Your task to perform on an android device: Find coffee shops on Maps Image 0: 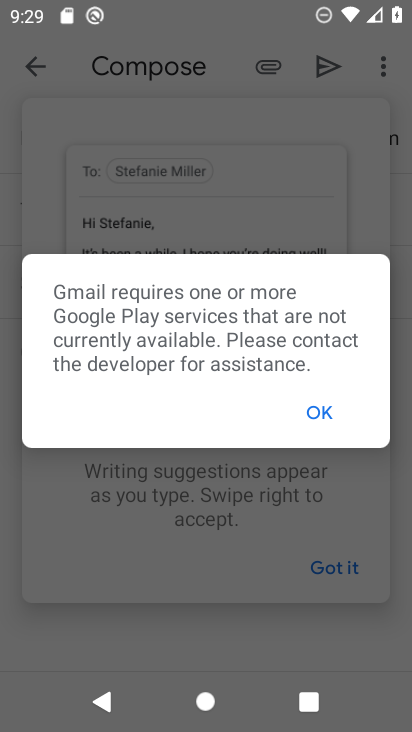
Step 0: press home button
Your task to perform on an android device: Find coffee shops on Maps Image 1: 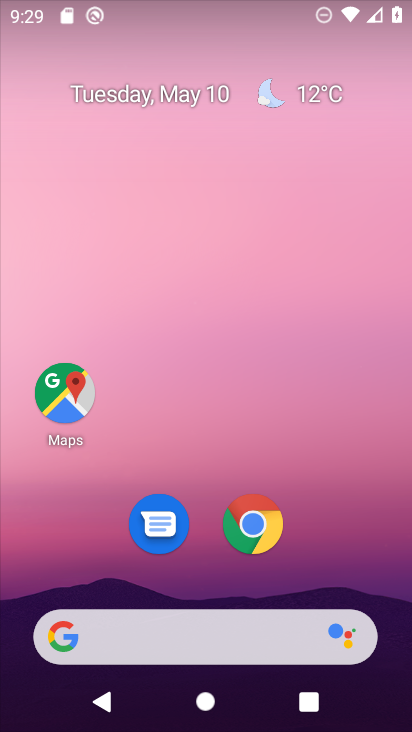
Step 1: click (59, 398)
Your task to perform on an android device: Find coffee shops on Maps Image 2: 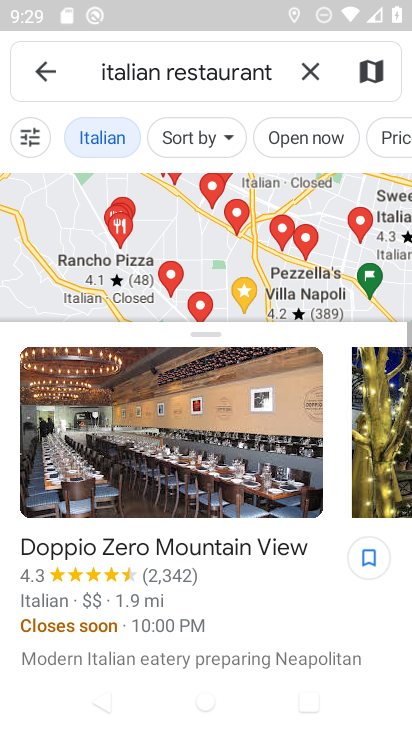
Step 2: click (306, 70)
Your task to perform on an android device: Find coffee shops on Maps Image 3: 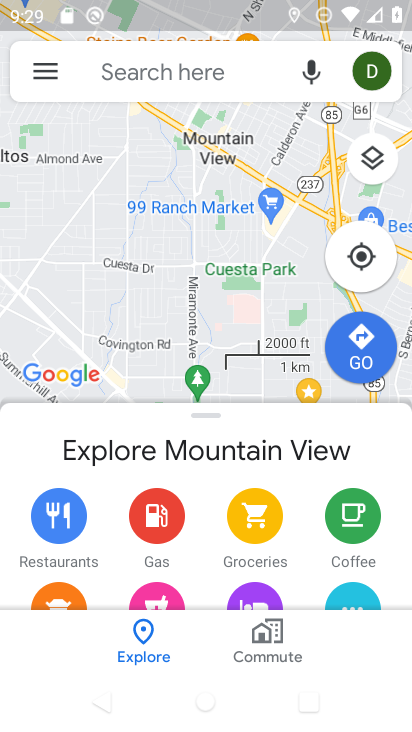
Step 3: click (171, 72)
Your task to perform on an android device: Find coffee shops on Maps Image 4: 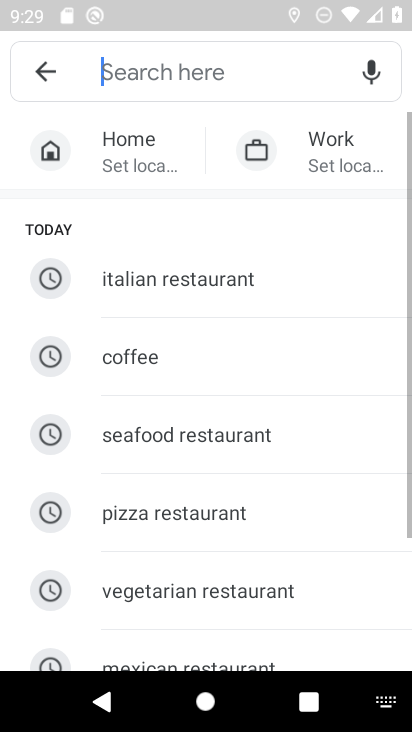
Step 4: click (139, 358)
Your task to perform on an android device: Find coffee shops on Maps Image 5: 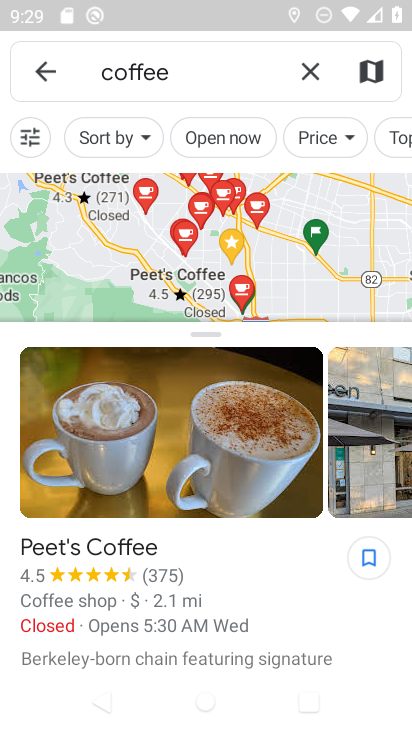
Step 5: task complete